Your task to perform on an android device: open device folders in google photos Image 0: 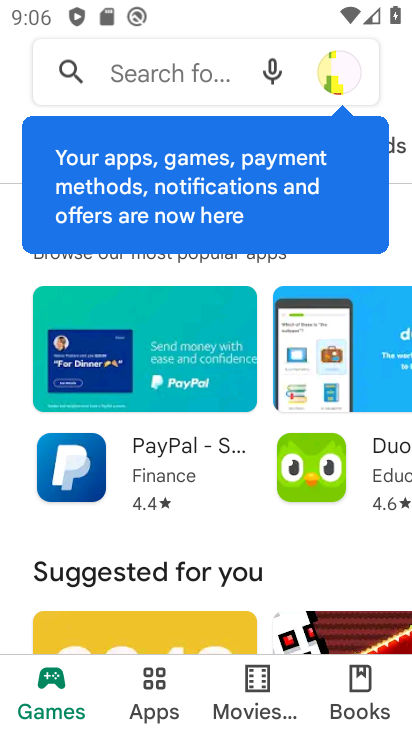
Step 0: press home button
Your task to perform on an android device: open device folders in google photos Image 1: 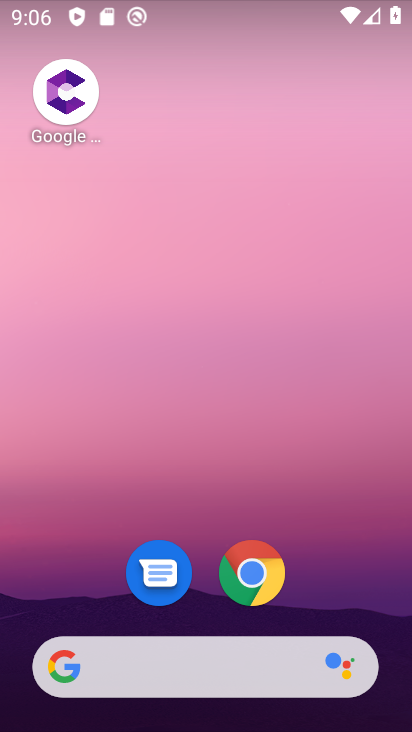
Step 1: drag from (379, 611) to (317, 64)
Your task to perform on an android device: open device folders in google photos Image 2: 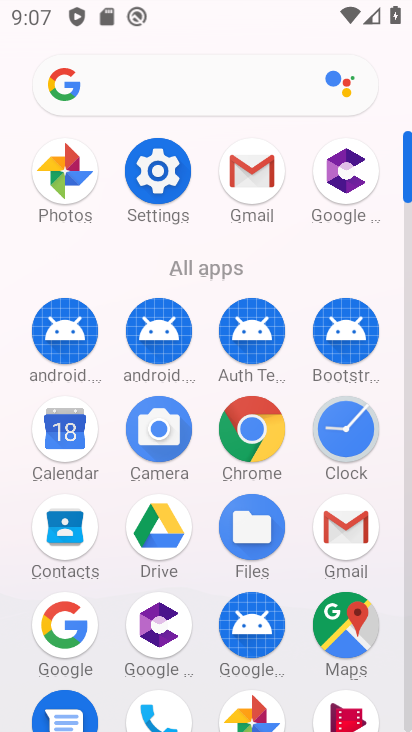
Step 2: click (408, 689)
Your task to perform on an android device: open device folders in google photos Image 3: 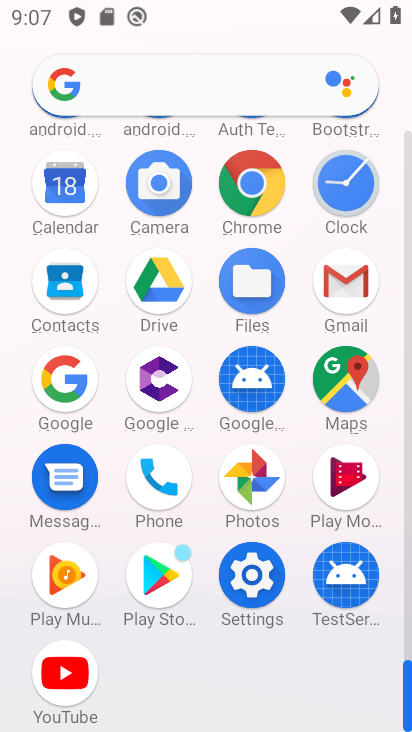
Step 3: click (250, 477)
Your task to perform on an android device: open device folders in google photos Image 4: 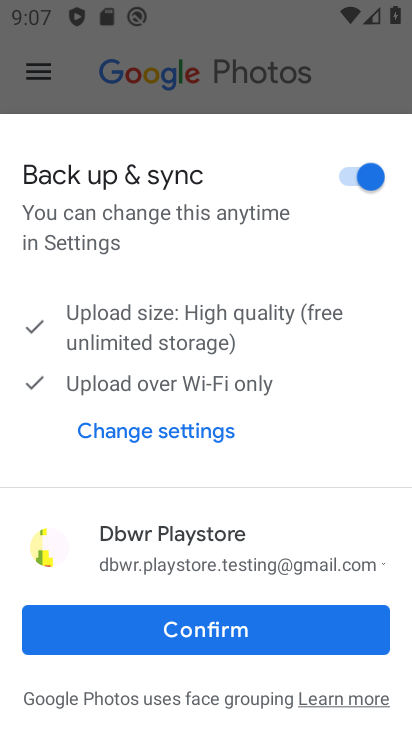
Step 4: click (202, 625)
Your task to perform on an android device: open device folders in google photos Image 5: 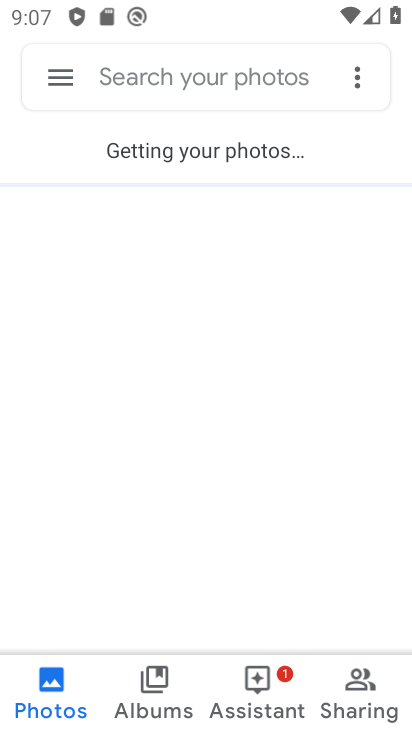
Step 5: click (57, 74)
Your task to perform on an android device: open device folders in google photos Image 6: 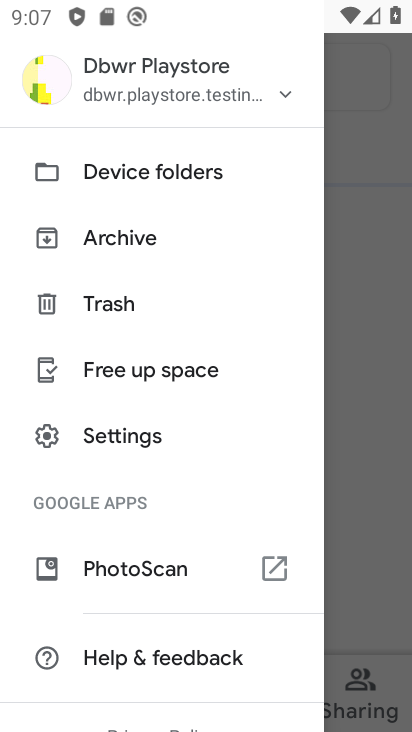
Step 6: click (136, 176)
Your task to perform on an android device: open device folders in google photos Image 7: 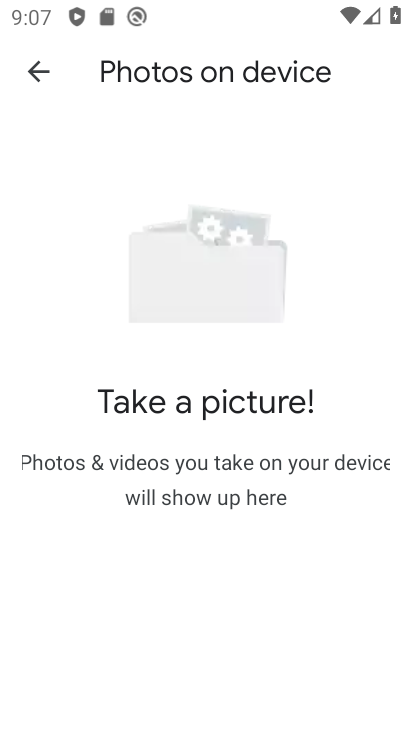
Step 7: task complete